Your task to perform on an android device: turn on wifi Image 0: 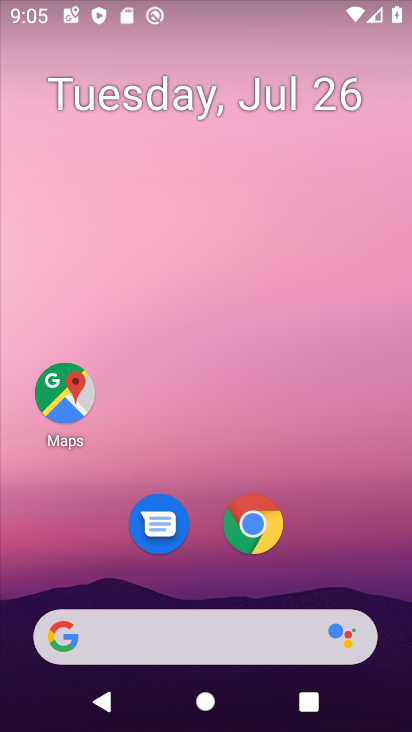
Step 0: press home button
Your task to perform on an android device: turn on wifi Image 1: 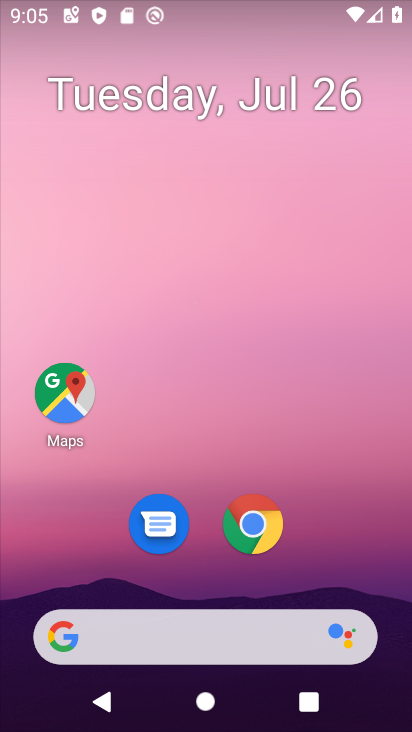
Step 1: drag from (171, 639) to (313, 28)
Your task to perform on an android device: turn on wifi Image 2: 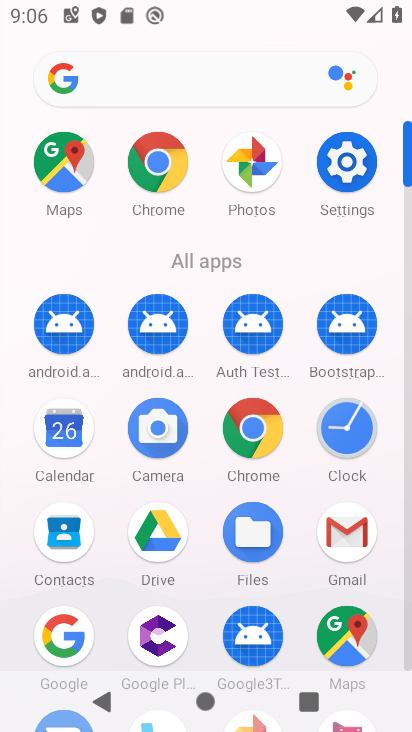
Step 2: click (337, 168)
Your task to perform on an android device: turn on wifi Image 3: 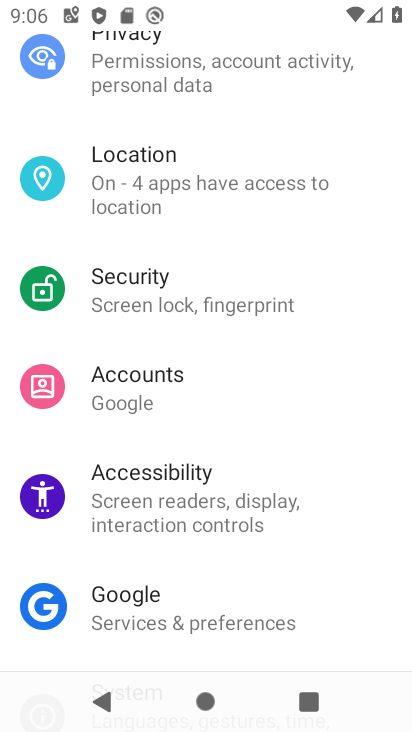
Step 3: drag from (303, 365) to (286, 601)
Your task to perform on an android device: turn on wifi Image 4: 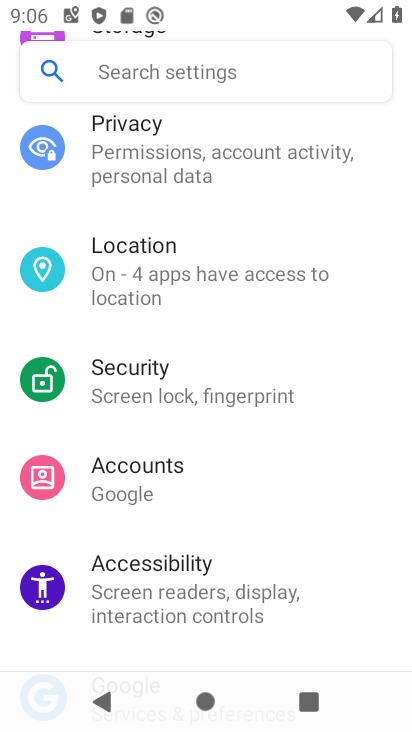
Step 4: drag from (275, 124) to (269, 585)
Your task to perform on an android device: turn on wifi Image 5: 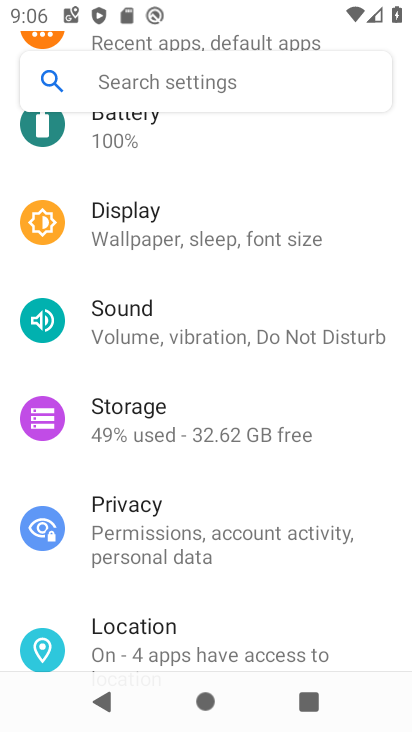
Step 5: drag from (280, 157) to (221, 594)
Your task to perform on an android device: turn on wifi Image 6: 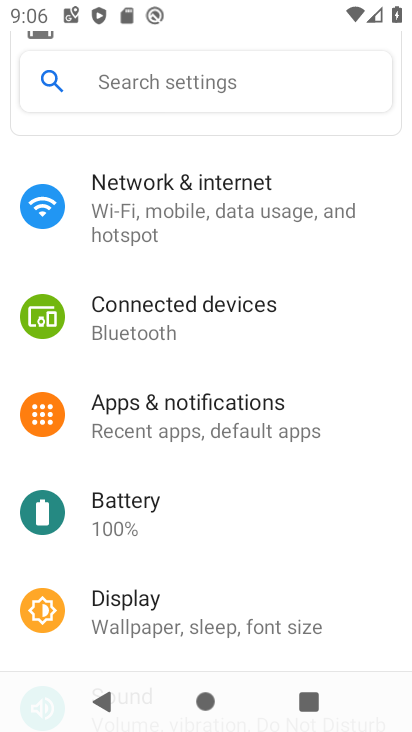
Step 6: click (230, 196)
Your task to perform on an android device: turn on wifi Image 7: 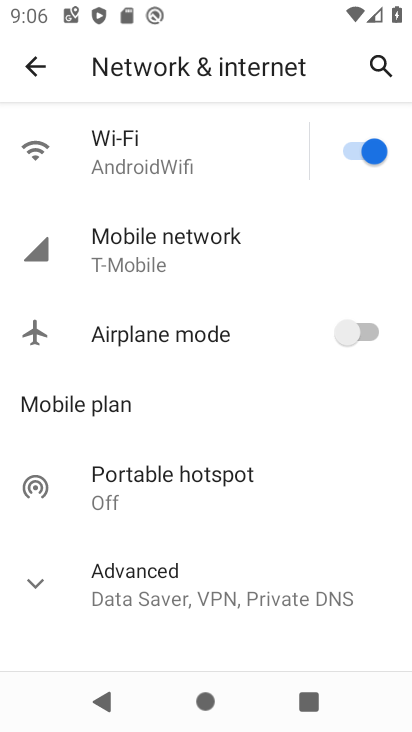
Step 7: task complete